Your task to perform on an android device: add a label to a message in the gmail app Image 0: 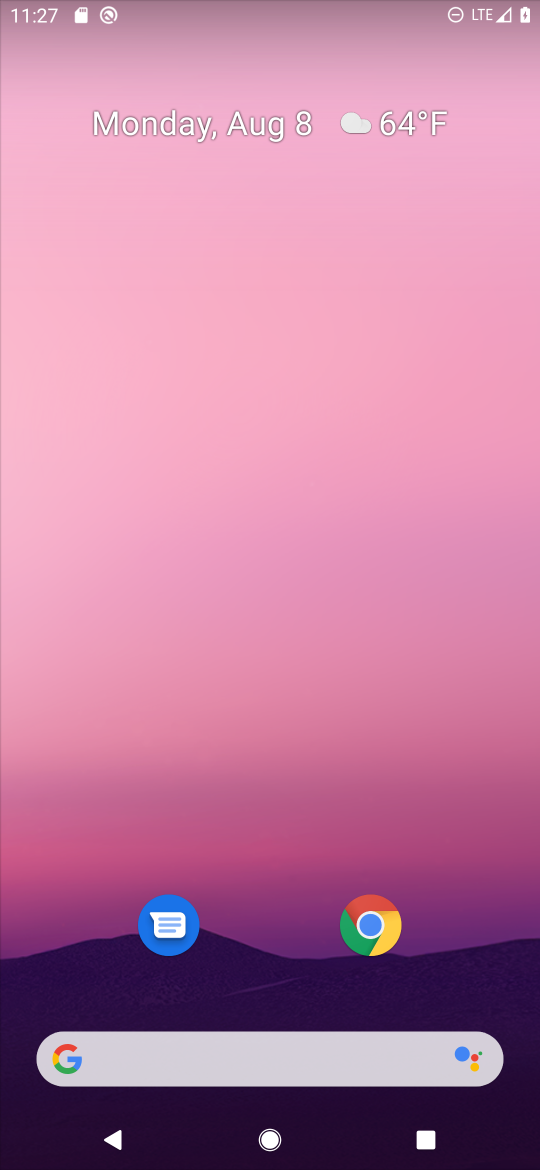
Step 0: drag from (236, 895) to (282, 160)
Your task to perform on an android device: add a label to a message in the gmail app Image 1: 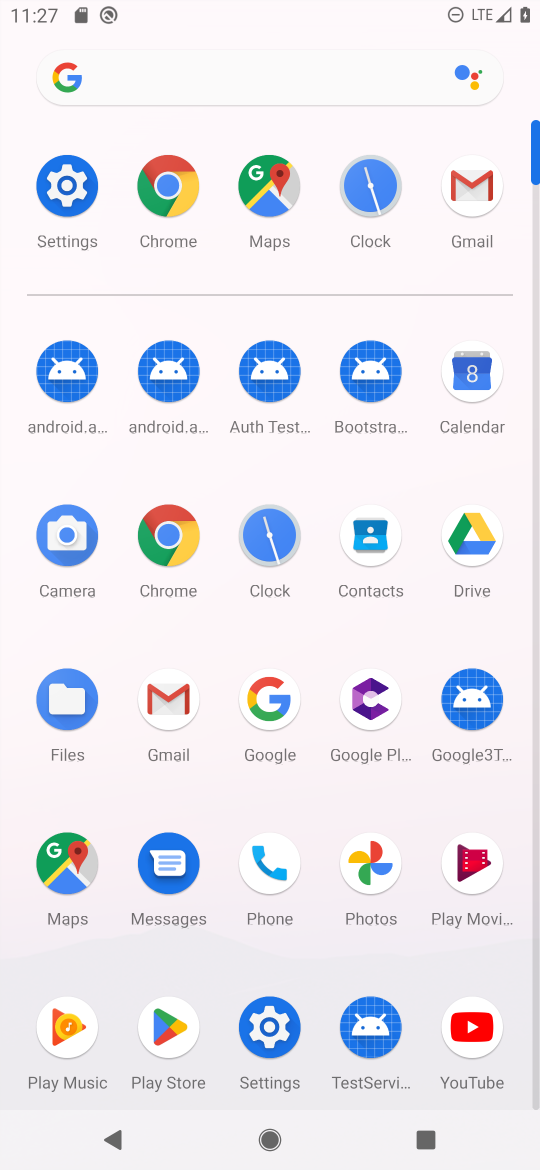
Step 1: click (174, 688)
Your task to perform on an android device: add a label to a message in the gmail app Image 2: 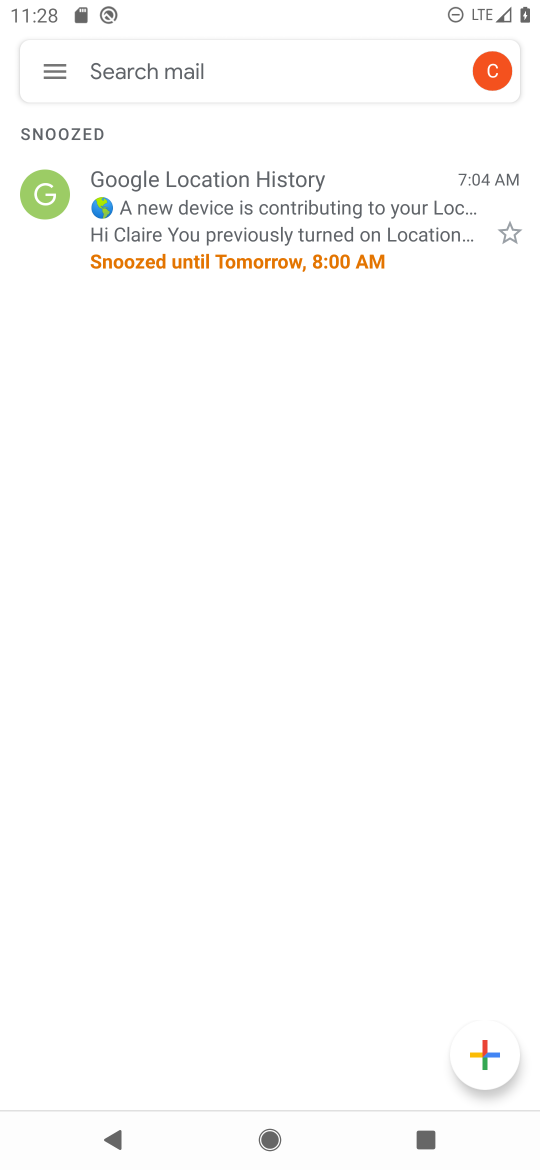
Step 2: click (278, 223)
Your task to perform on an android device: add a label to a message in the gmail app Image 3: 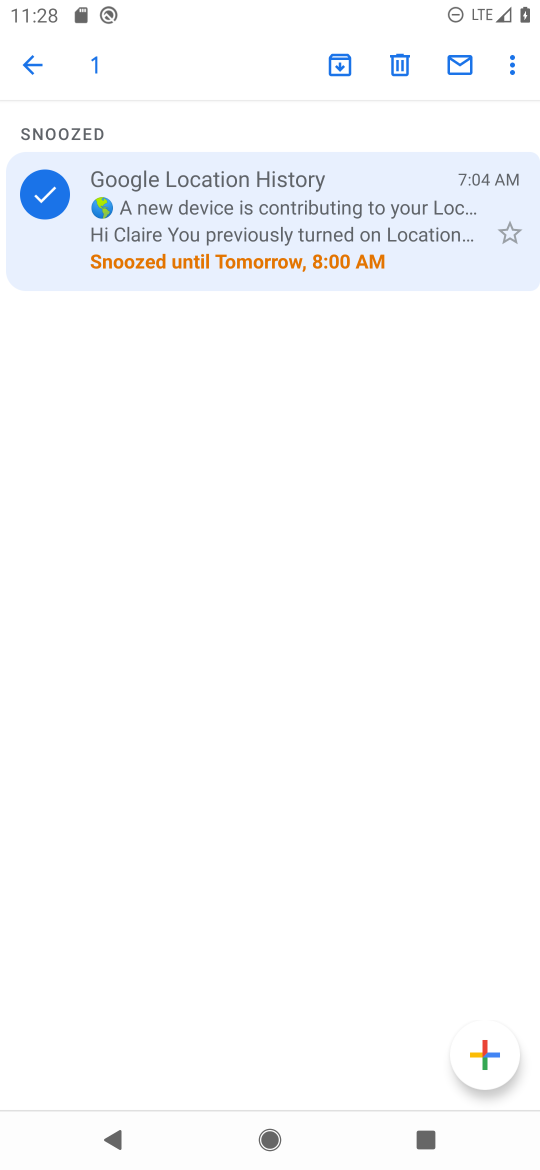
Step 3: click (513, 51)
Your task to perform on an android device: add a label to a message in the gmail app Image 4: 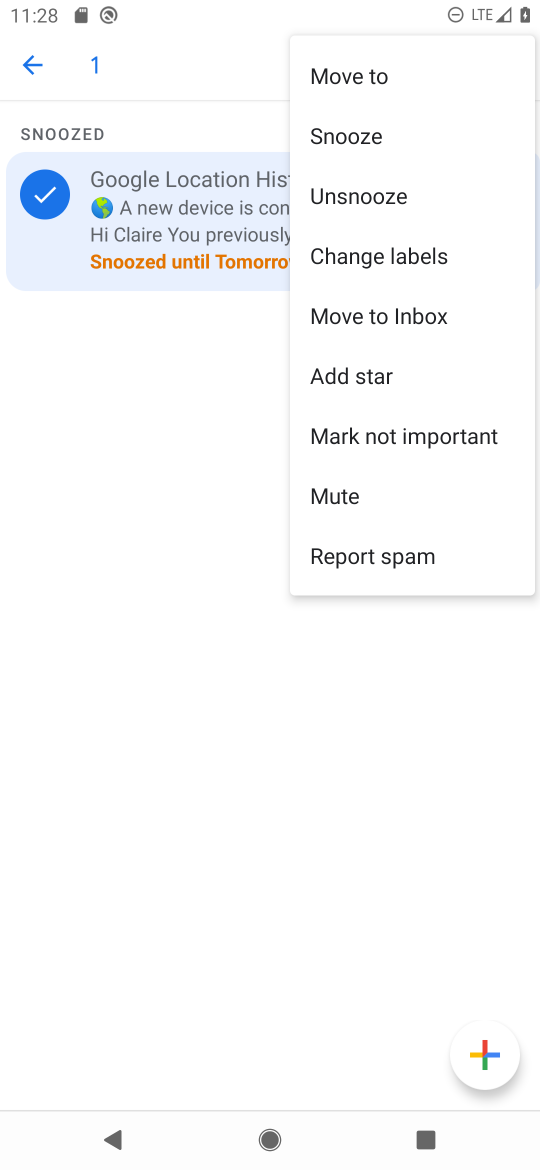
Step 4: task complete